Your task to perform on an android device: toggle wifi Image 0: 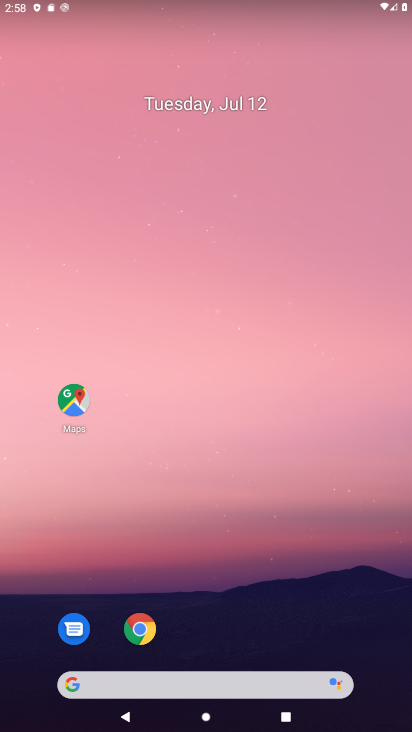
Step 0: drag from (271, 683) to (282, 315)
Your task to perform on an android device: toggle wifi Image 1: 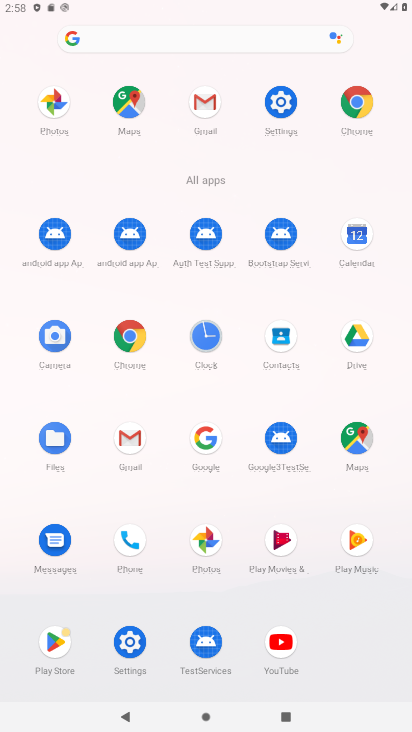
Step 1: drag from (207, 526) to (183, 255)
Your task to perform on an android device: toggle wifi Image 2: 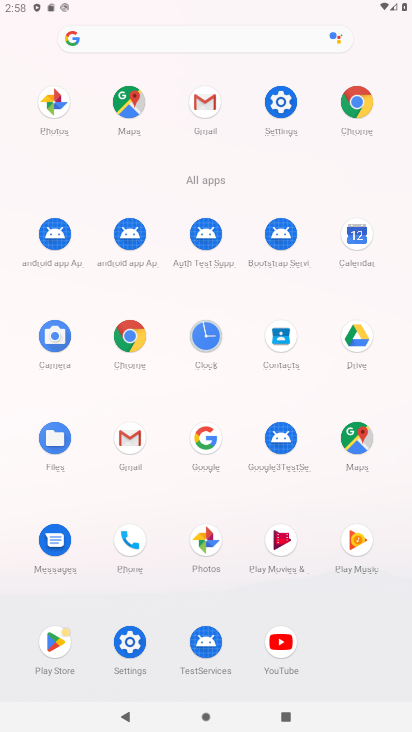
Step 2: click (283, 87)
Your task to perform on an android device: toggle wifi Image 3: 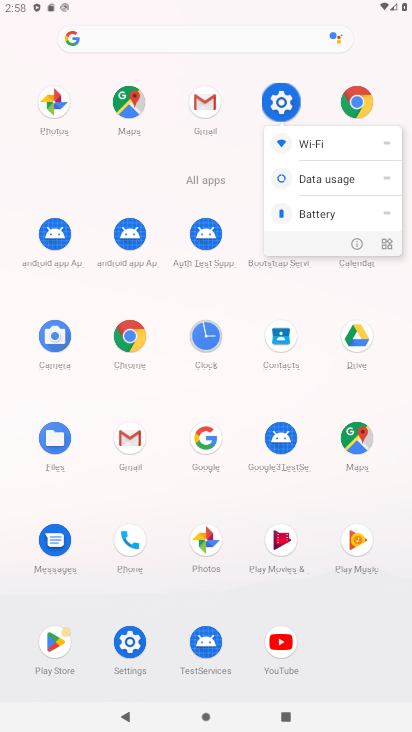
Step 3: click (280, 93)
Your task to perform on an android device: toggle wifi Image 4: 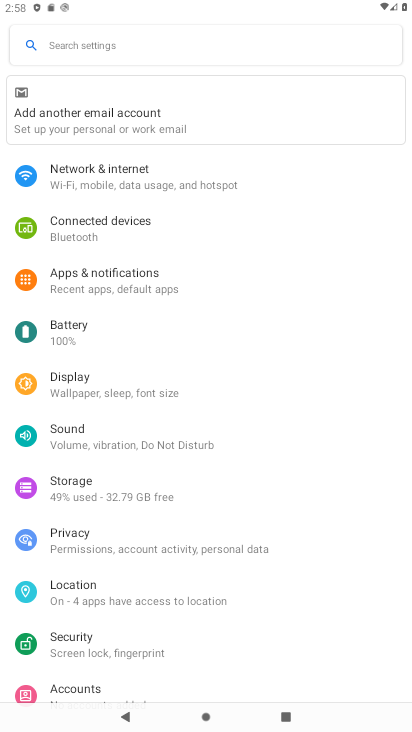
Step 4: click (130, 179)
Your task to perform on an android device: toggle wifi Image 5: 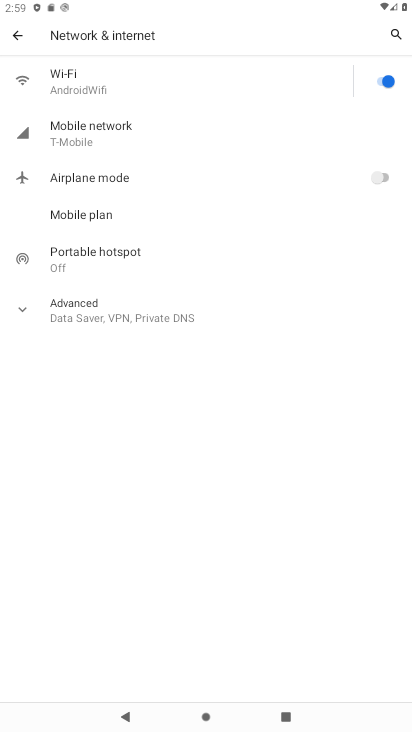
Step 5: click (80, 82)
Your task to perform on an android device: toggle wifi Image 6: 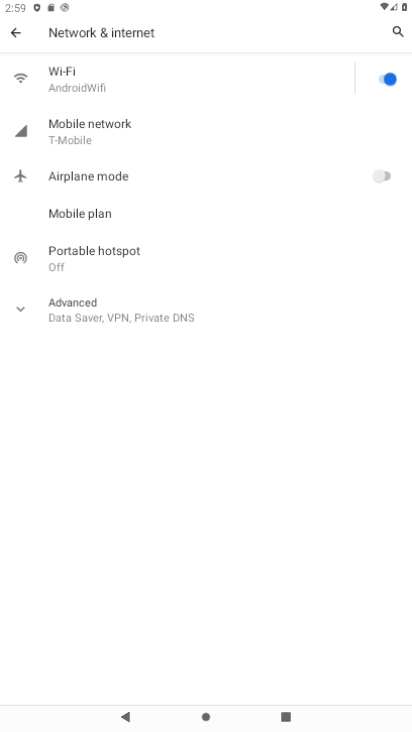
Step 6: click (390, 77)
Your task to perform on an android device: toggle wifi Image 7: 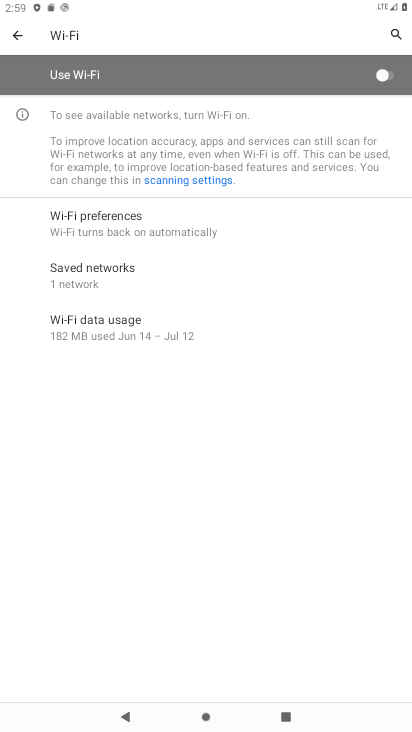
Step 7: task complete